Your task to perform on an android device: Open Google Chrome and open the bookmarks view Image 0: 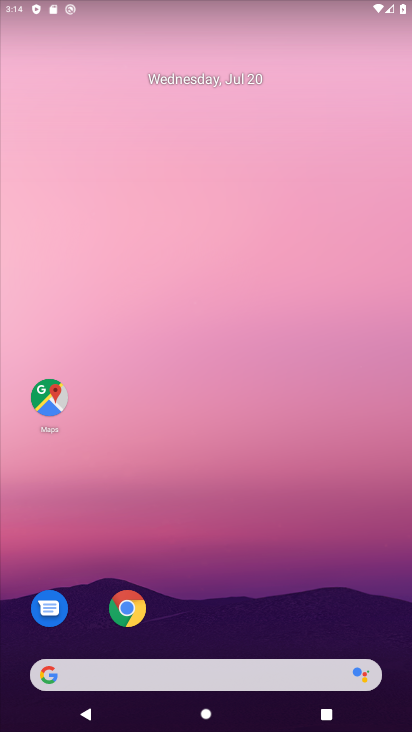
Step 0: click (144, 601)
Your task to perform on an android device: Open Google Chrome and open the bookmarks view Image 1: 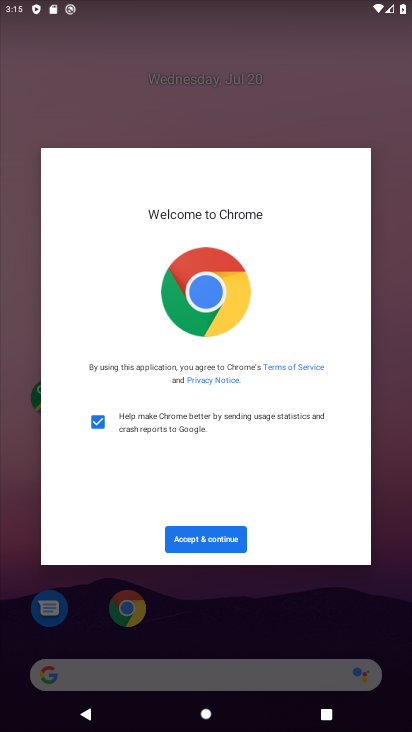
Step 1: click (179, 537)
Your task to perform on an android device: Open Google Chrome and open the bookmarks view Image 2: 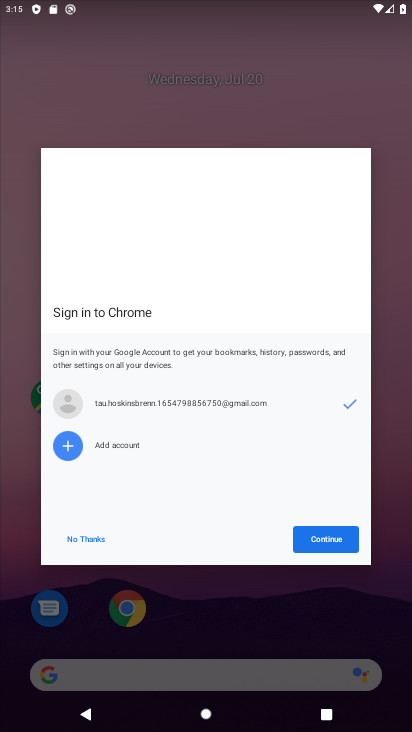
Step 2: click (312, 535)
Your task to perform on an android device: Open Google Chrome and open the bookmarks view Image 3: 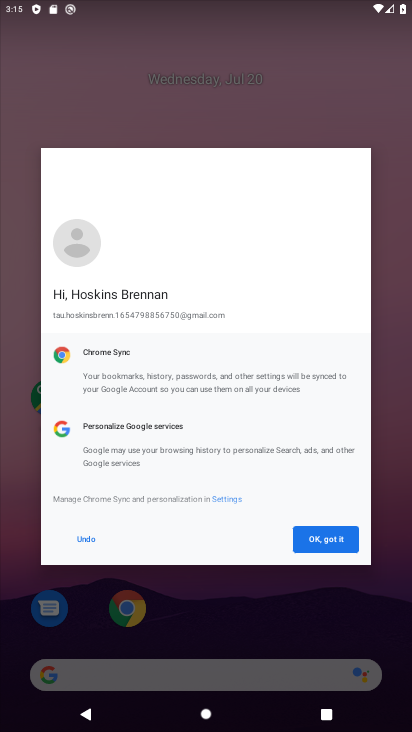
Step 3: click (312, 535)
Your task to perform on an android device: Open Google Chrome and open the bookmarks view Image 4: 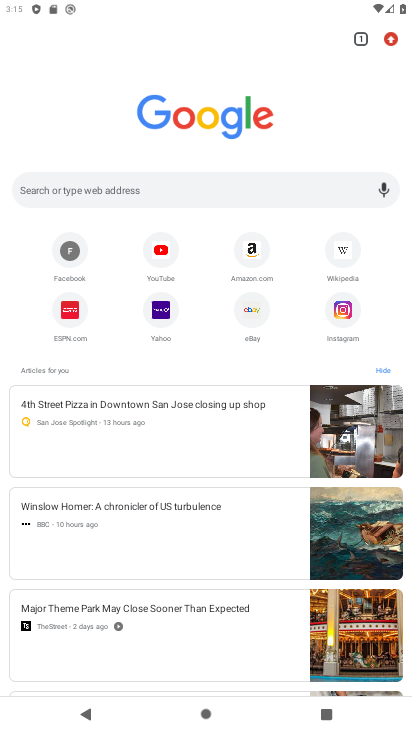
Step 4: task complete